Your task to perform on an android device: open app "Yahoo Mail" (install if not already installed) and enter user name: "lawsuit@inbox.com" and password: "pooch" Image 0: 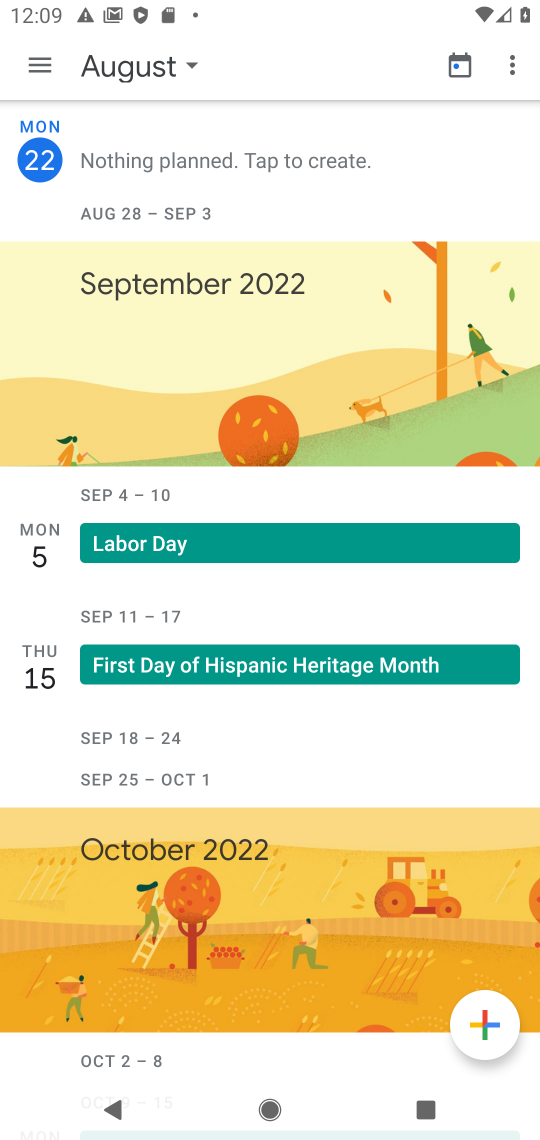
Step 0: press home button
Your task to perform on an android device: open app "Yahoo Mail" (install if not already installed) and enter user name: "lawsuit@inbox.com" and password: "pooch" Image 1: 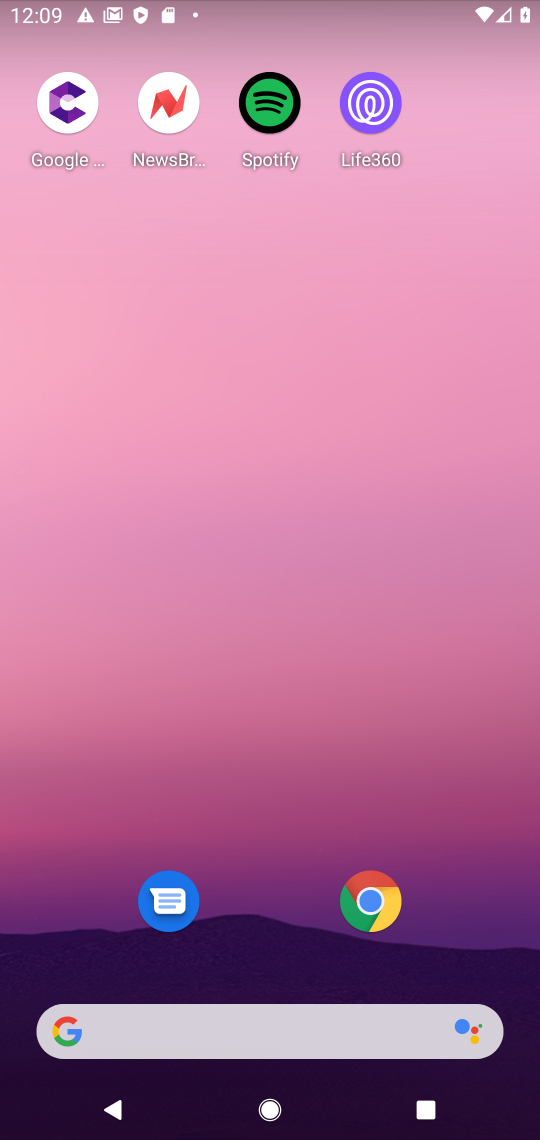
Step 1: drag from (217, 865) to (237, 723)
Your task to perform on an android device: open app "Yahoo Mail" (install if not already installed) and enter user name: "lawsuit@inbox.com" and password: "pooch" Image 2: 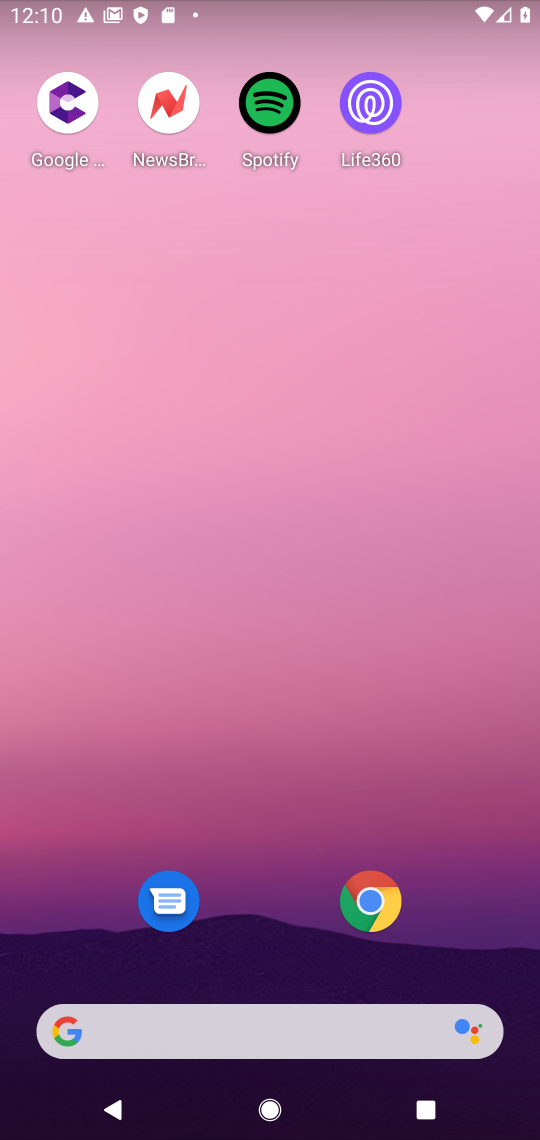
Step 2: drag from (239, 1028) to (277, 426)
Your task to perform on an android device: open app "Yahoo Mail" (install if not already installed) and enter user name: "lawsuit@inbox.com" and password: "pooch" Image 3: 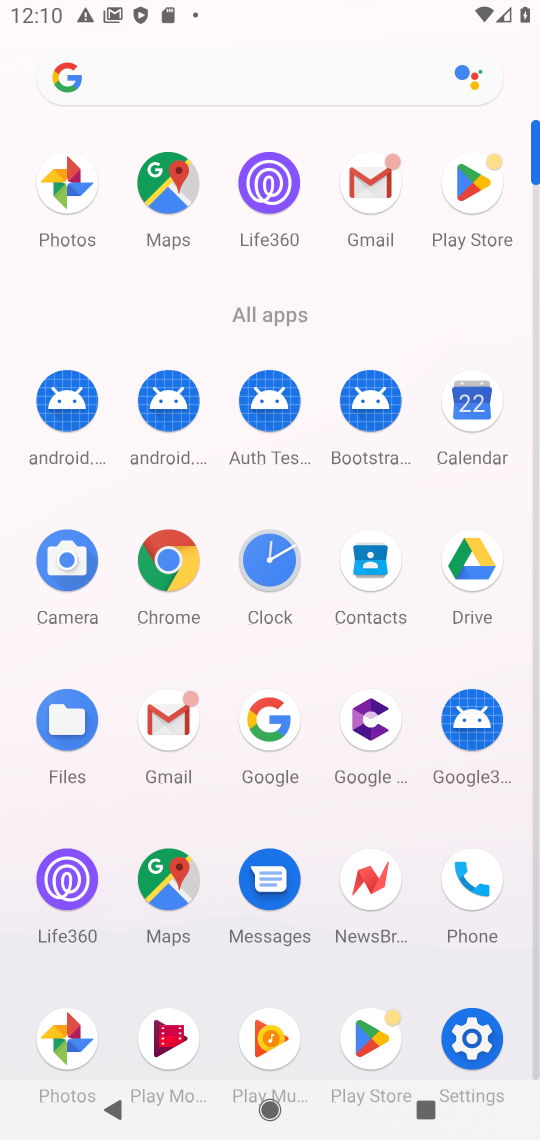
Step 3: click (474, 186)
Your task to perform on an android device: open app "Yahoo Mail" (install if not already installed) and enter user name: "lawsuit@inbox.com" and password: "pooch" Image 4: 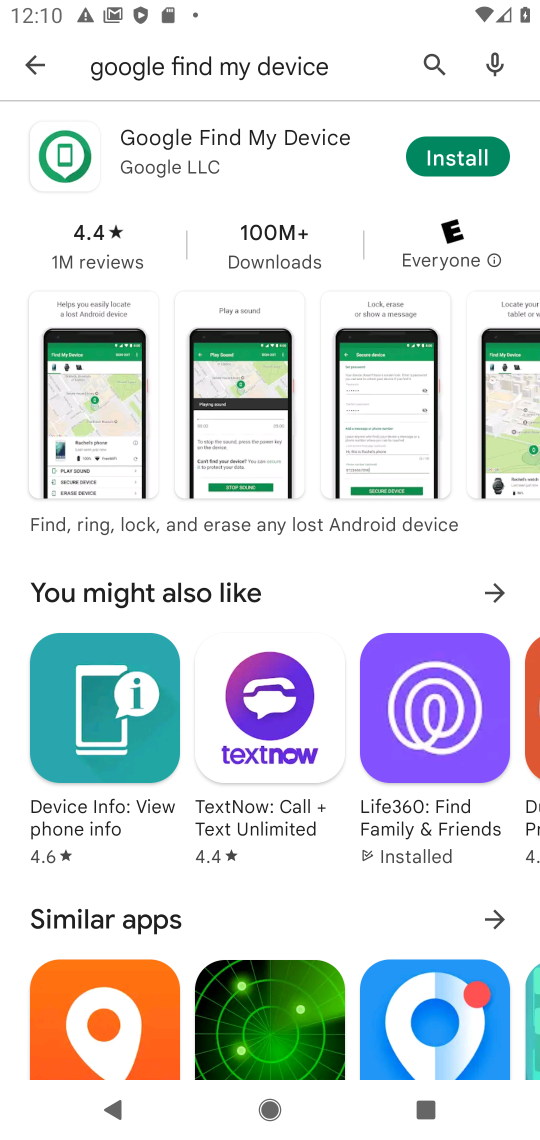
Step 4: click (415, 80)
Your task to perform on an android device: open app "Yahoo Mail" (install if not already installed) and enter user name: "lawsuit@inbox.com" and password: "pooch" Image 5: 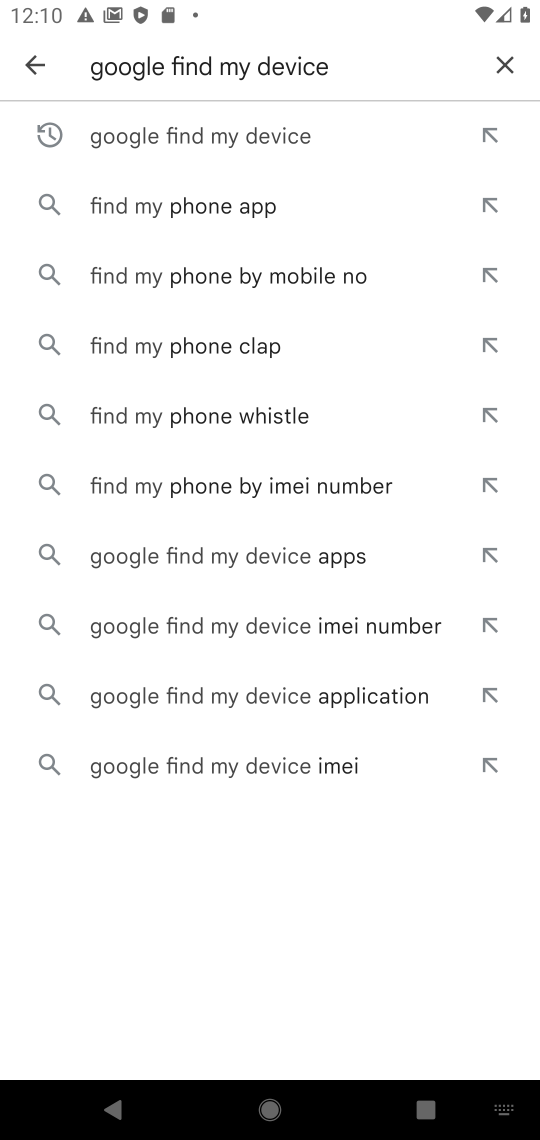
Step 5: click (500, 61)
Your task to perform on an android device: open app "Yahoo Mail" (install if not already installed) and enter user name: "lawsuit@inbox.com" and password: "pooch" Image 6: 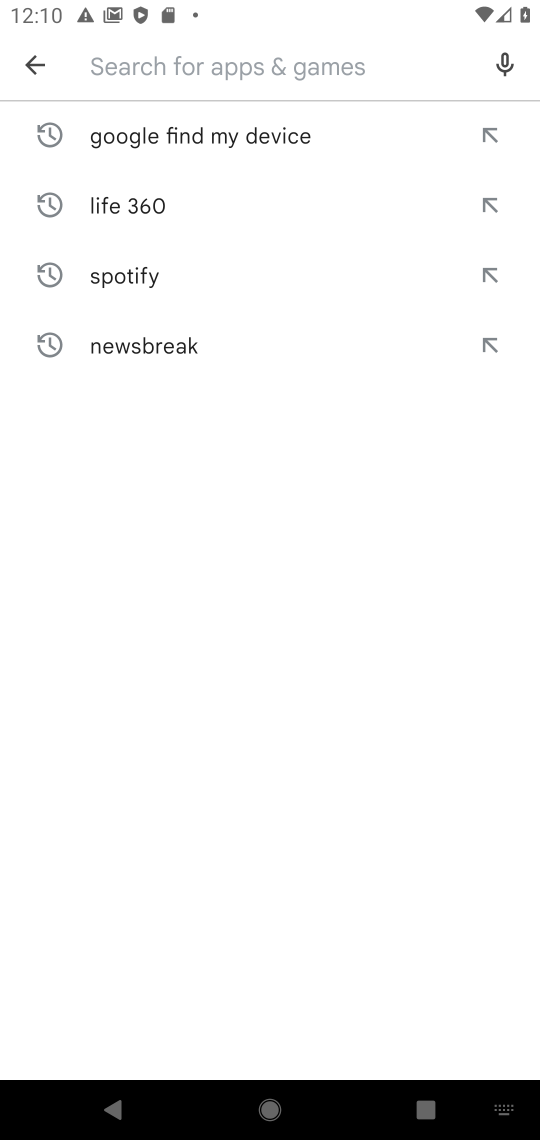
Step 6: type "yahoo mail"
Your task to perform on an android device: open app "Yahoo Mail" (install if not already installed) and enter user name: "lawsuit@inbox.com" and password: "pooch" Image 7: 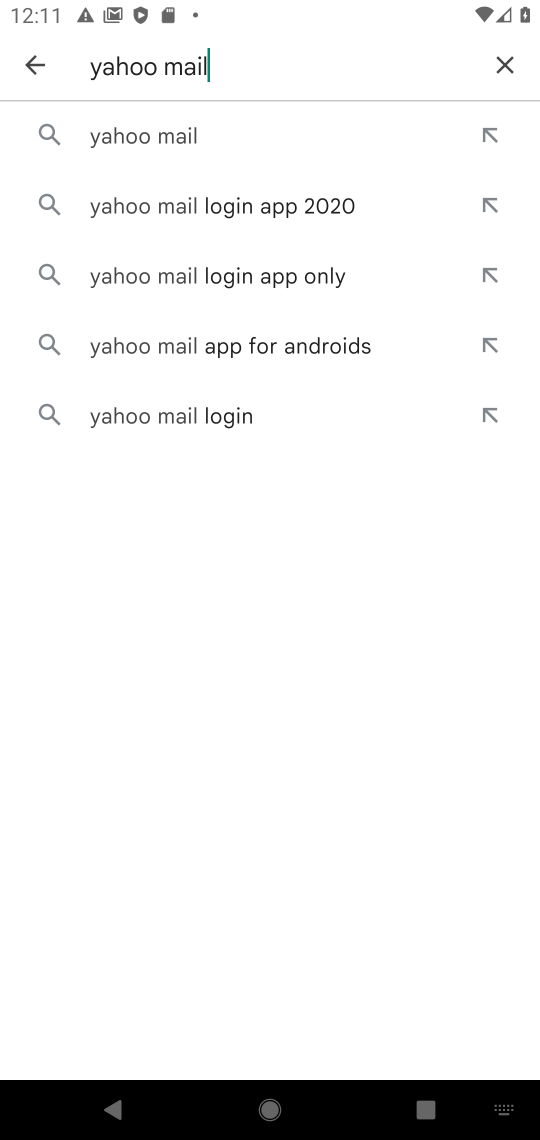
Step 7: click (154, 157)
Your task to perform on an android device: open app "Yahoo Mail" (install if not already installed) and enter user name: "lawsuit@inbox.com" and password: "pooch" Image 8: 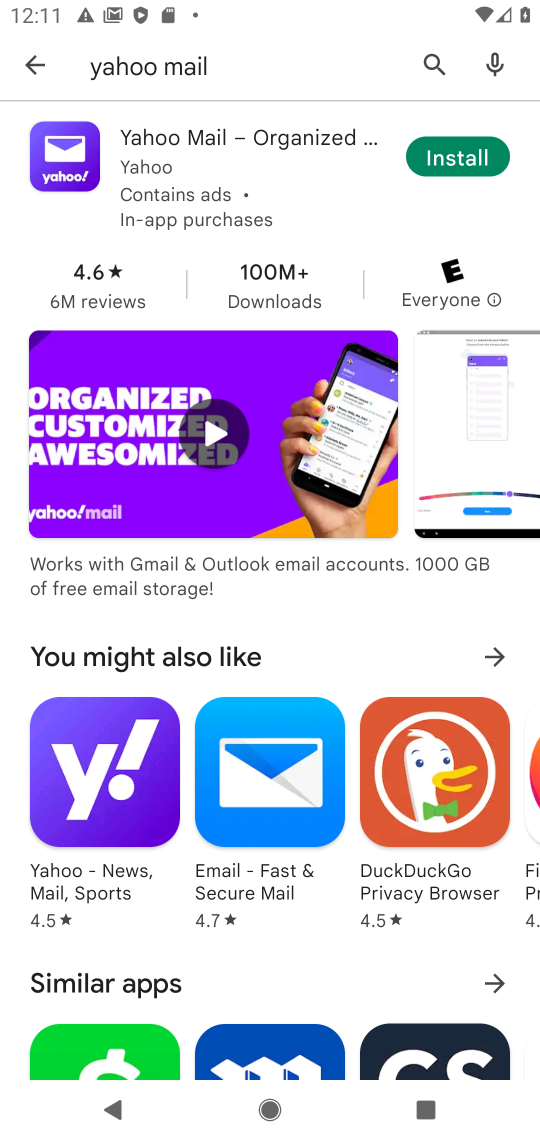
Step 8: click (429, 163)
Your task to perform on an android device: open app "Yahoo Mail" (install if not already installed) and enter user name: "lawsuit@inbox.com" and password: "pooch" Image 9: 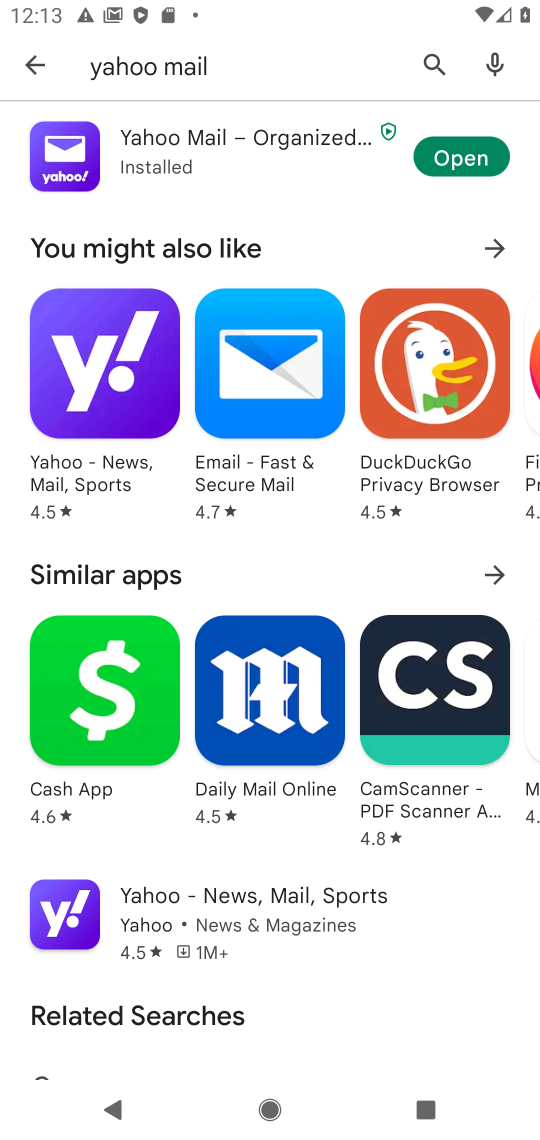
Step 9: click (459, 149)
Your task to perform on an android device: open app "Yahoo Mail" (install if not already installed) and enter user name: "lawsuit@inbox.com" and password: "pooch" Image 10: 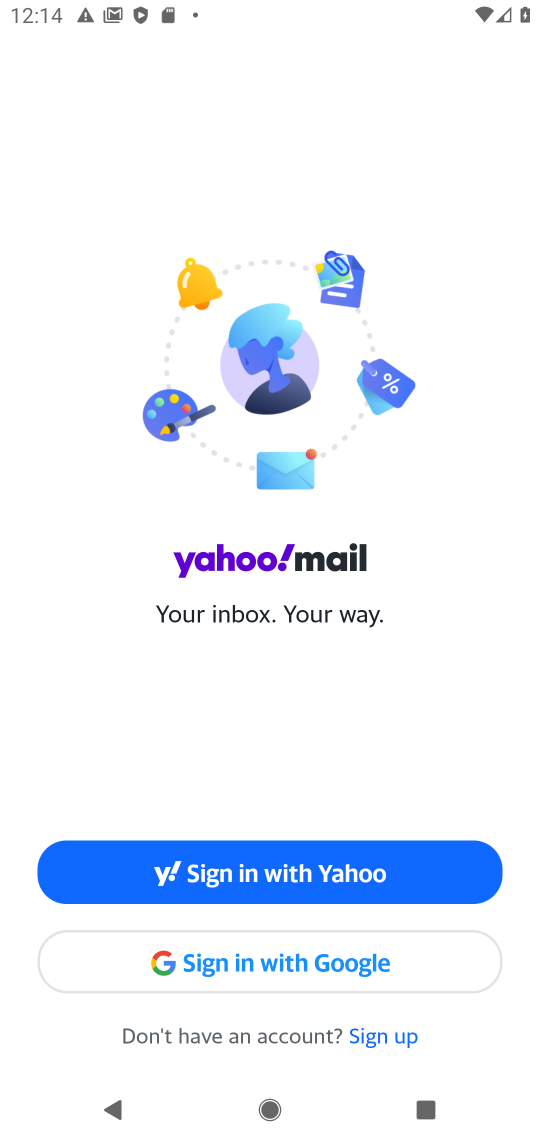
Step 10: click (296, 893)
Your task to perform on an android device: open app "Yahoo Mail" (install if not already installed) and enter user name: "lawsuit@inbox.com" and password: "pooch" Image 11: 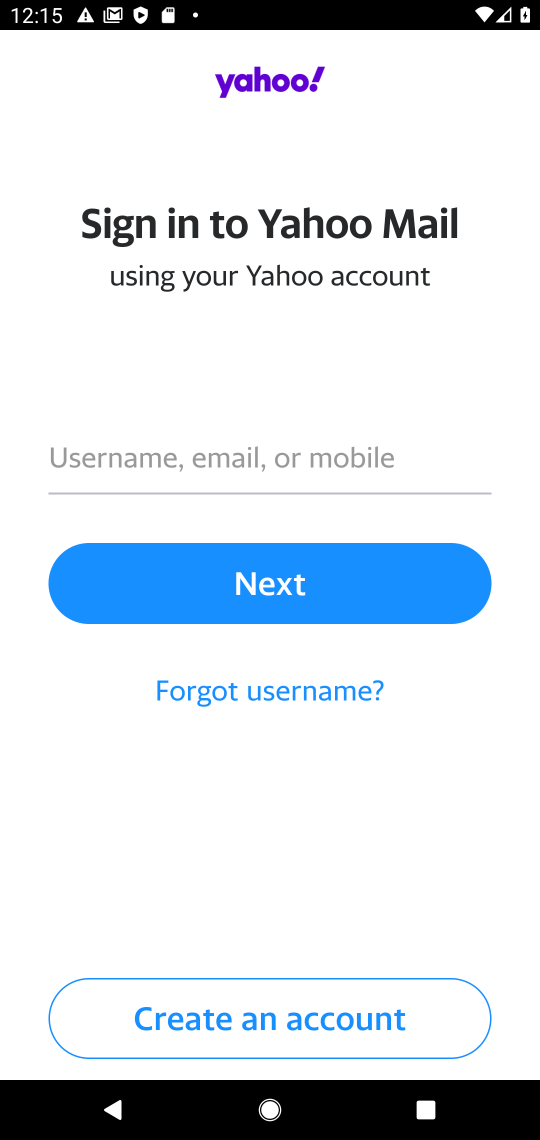
Step 11: click (143, 482)
Your task to perform on an android device: open app "Yahoo Mail" (install if not already installed) and enter user name: "lawsuit@inbox.com" and password: "pooch" Image 12: 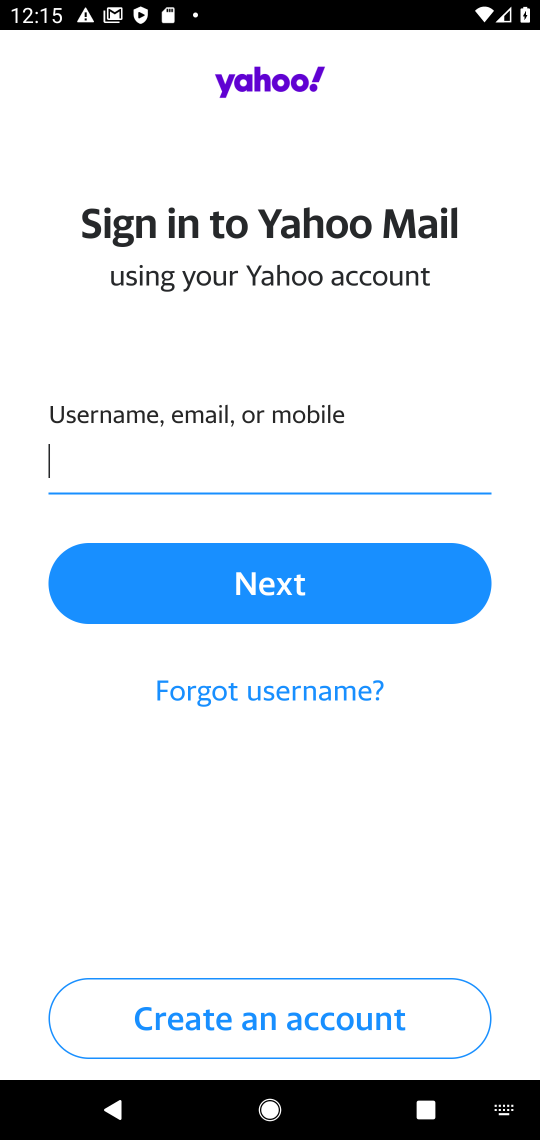
Step 12: type "lawsuit@inbox.com"
Your task to perform on an android device: open app "Yahoo Mail" (install if not already installed) and enter user name: "lawsuit@inbox.com" and password: "pooch" Image 13: 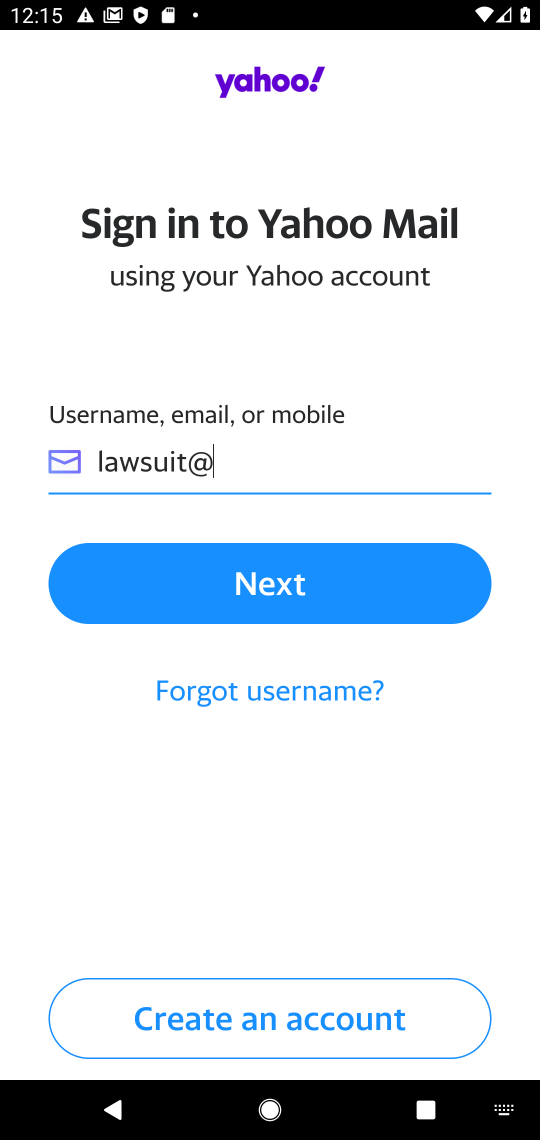
Step 13: click (383, 583)
Your task to perform on an android device: open app "Yahoo Mail" (install if not already installed) and enter user name: "lawsuit@inbox.com" and password: "pooch" Image 14: 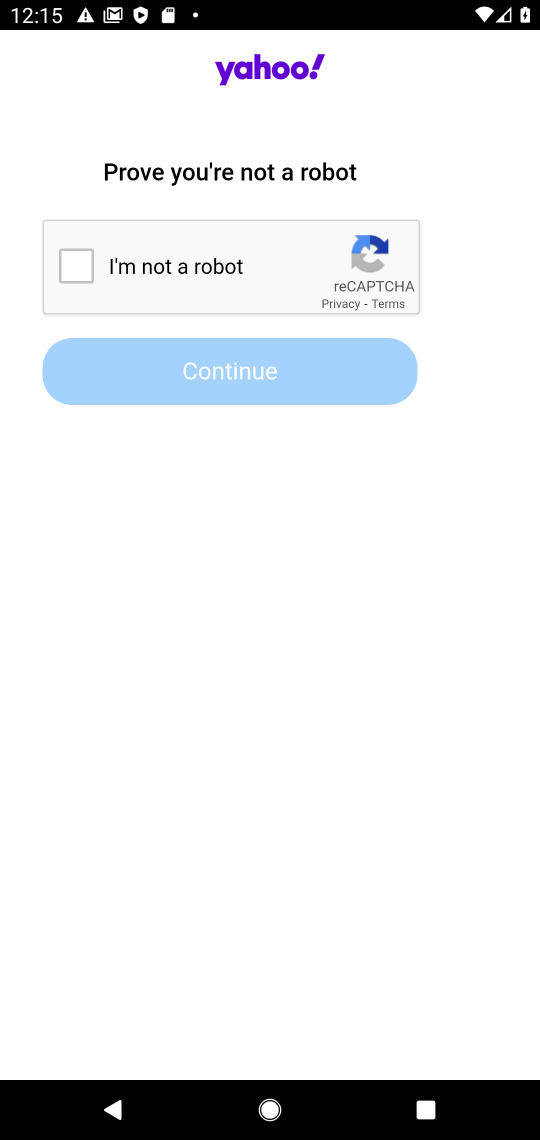
Step 14: click (87, 267)
Your task to perform on an android device: open app "Yahoo Mail" (install if not already installed) and enter user name: "lawsuit@inbox.com" and password: "pooch" Image 15: 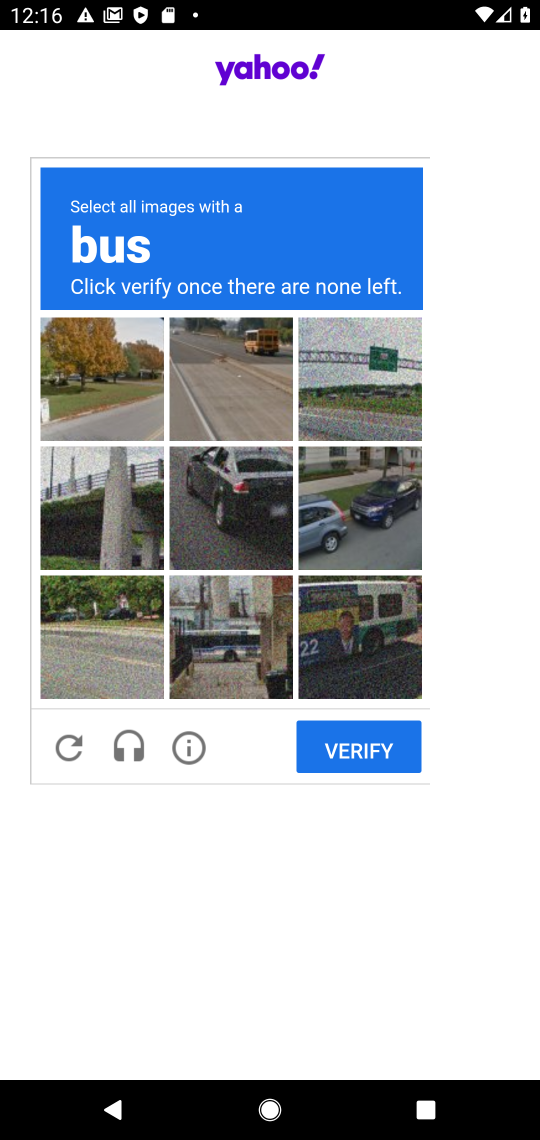
Step 15: task complete